Your task to perform on an android device: Open Google Image 0: 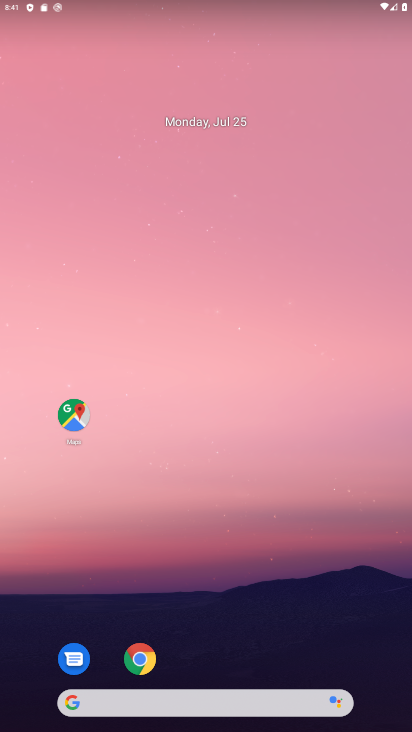
Step 0: drag from (207, 661) to (232, 216)
Your task to perform on an android device: Open Google Image 1: 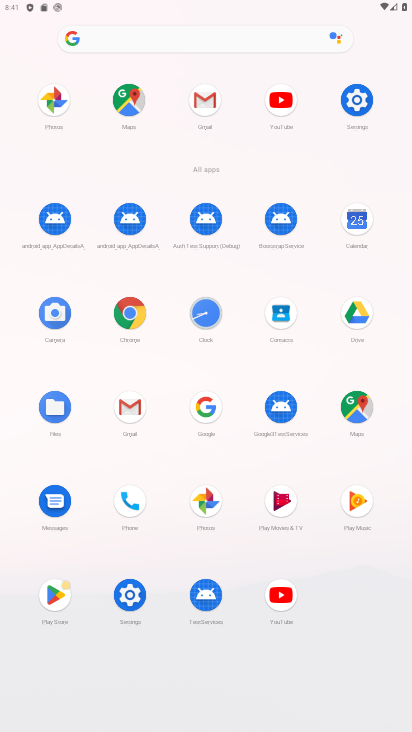
Step 1: click (199, 401)
Your task to perform on an android device: Open Google Image 2: 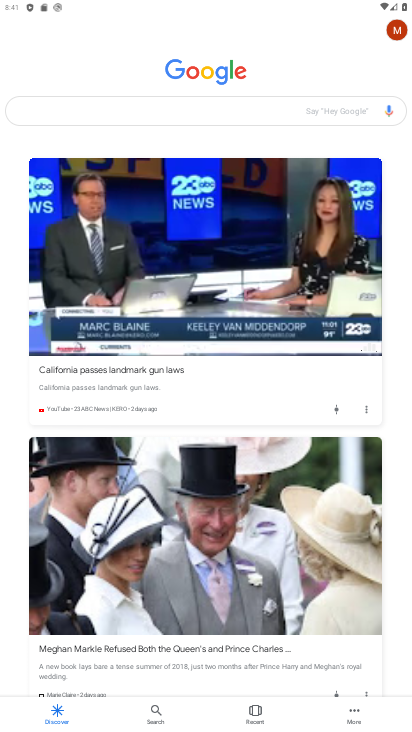
Step 2: task complete